Your task to perform on an android device: Search for the best 4K TV Image 0: 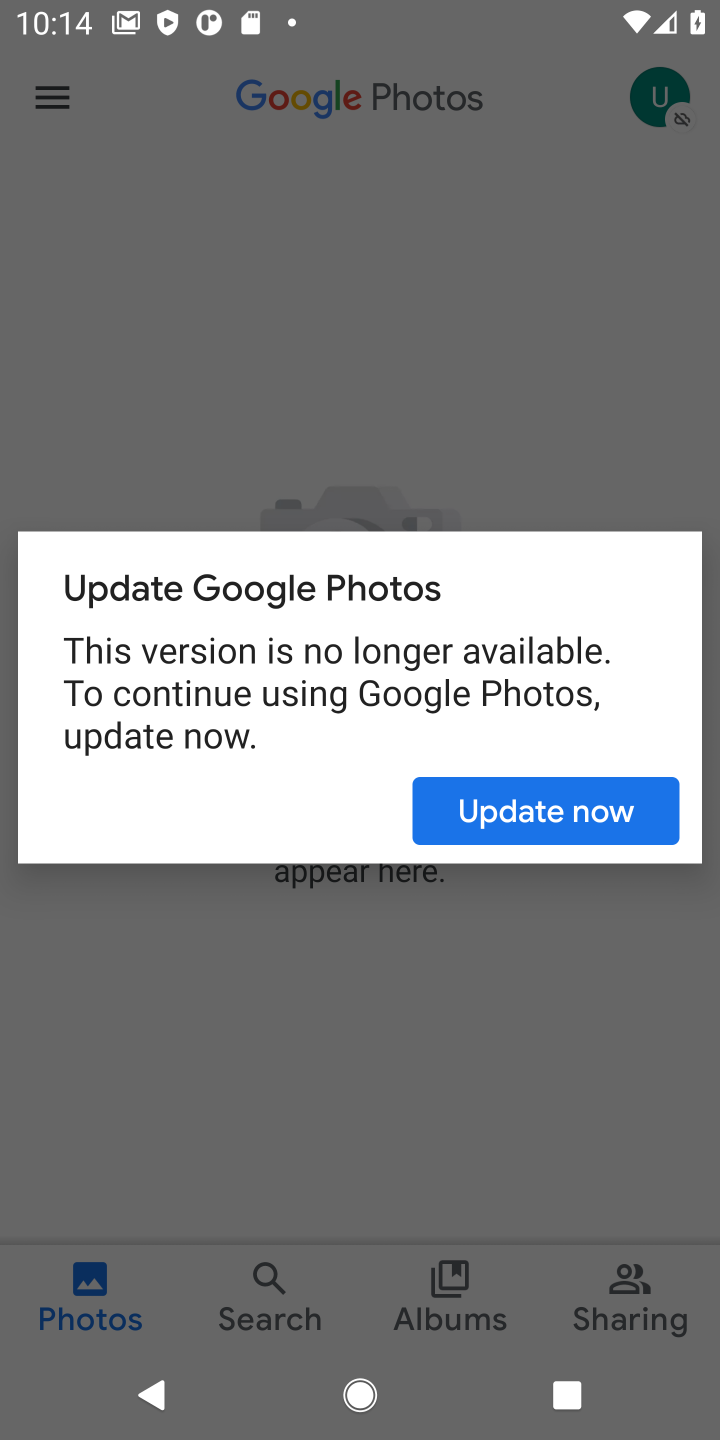
Step 0: press home button
Your task to perform on an android device: Search for the best 4K TV Image 1: 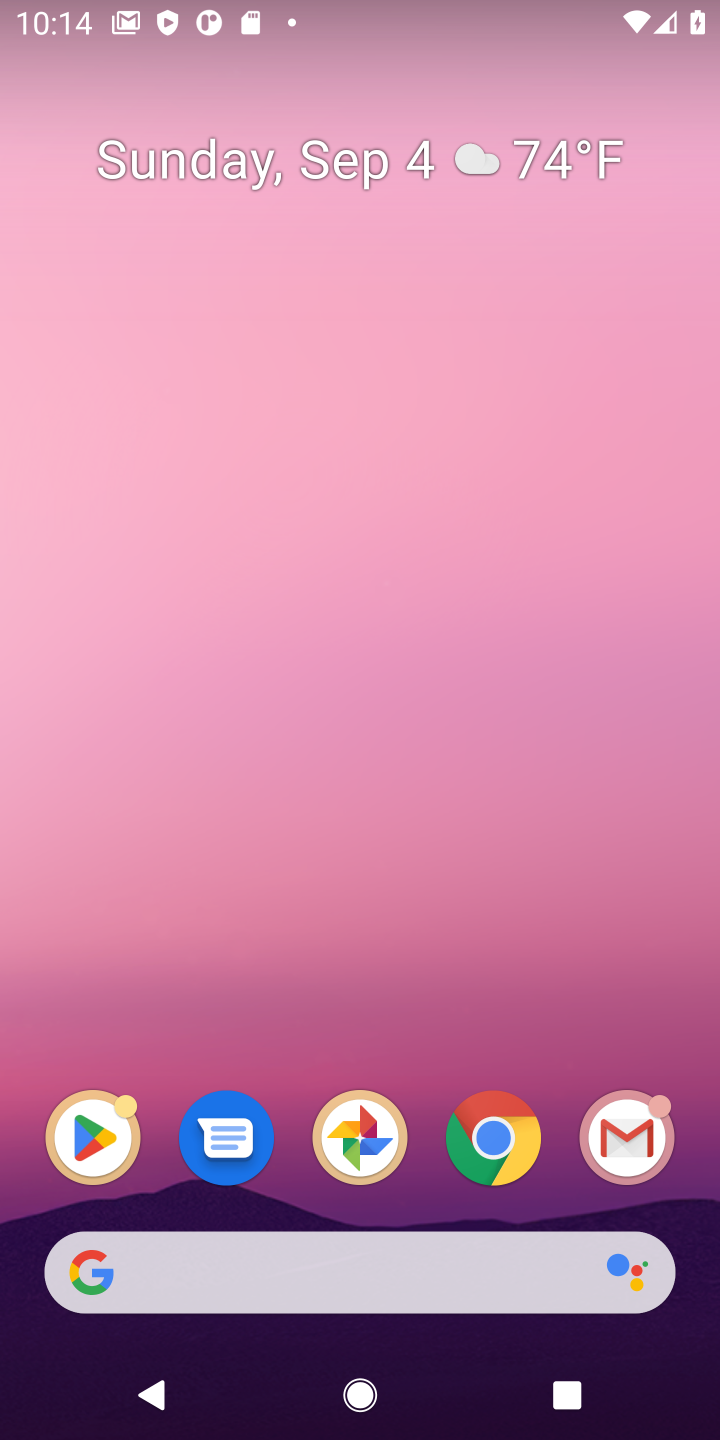
Step 1: click (479, 1137)
Your task to perform on an android device: Search for the best 4K TV Image 2: 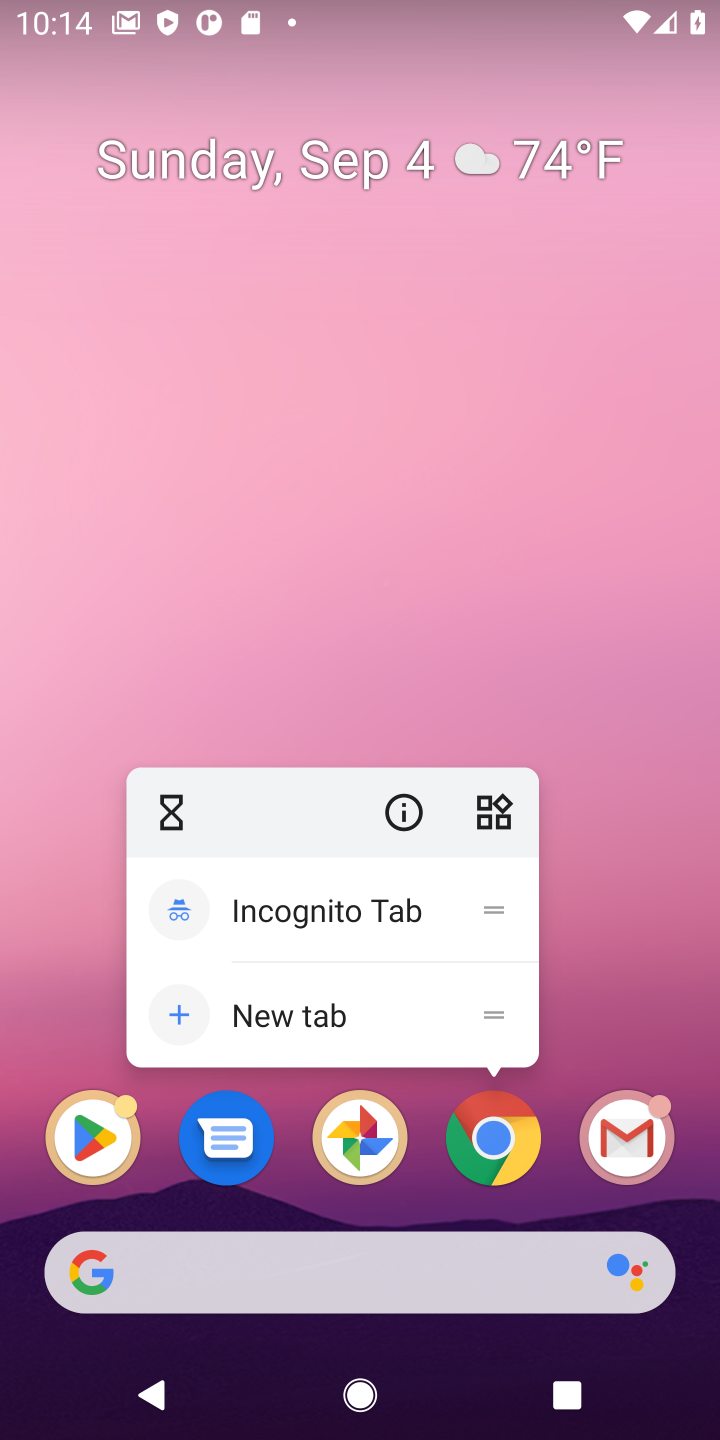
Step 2: click (463, 1134)
Your task to perform on an android device: Search for the best 4K TV Image 3: 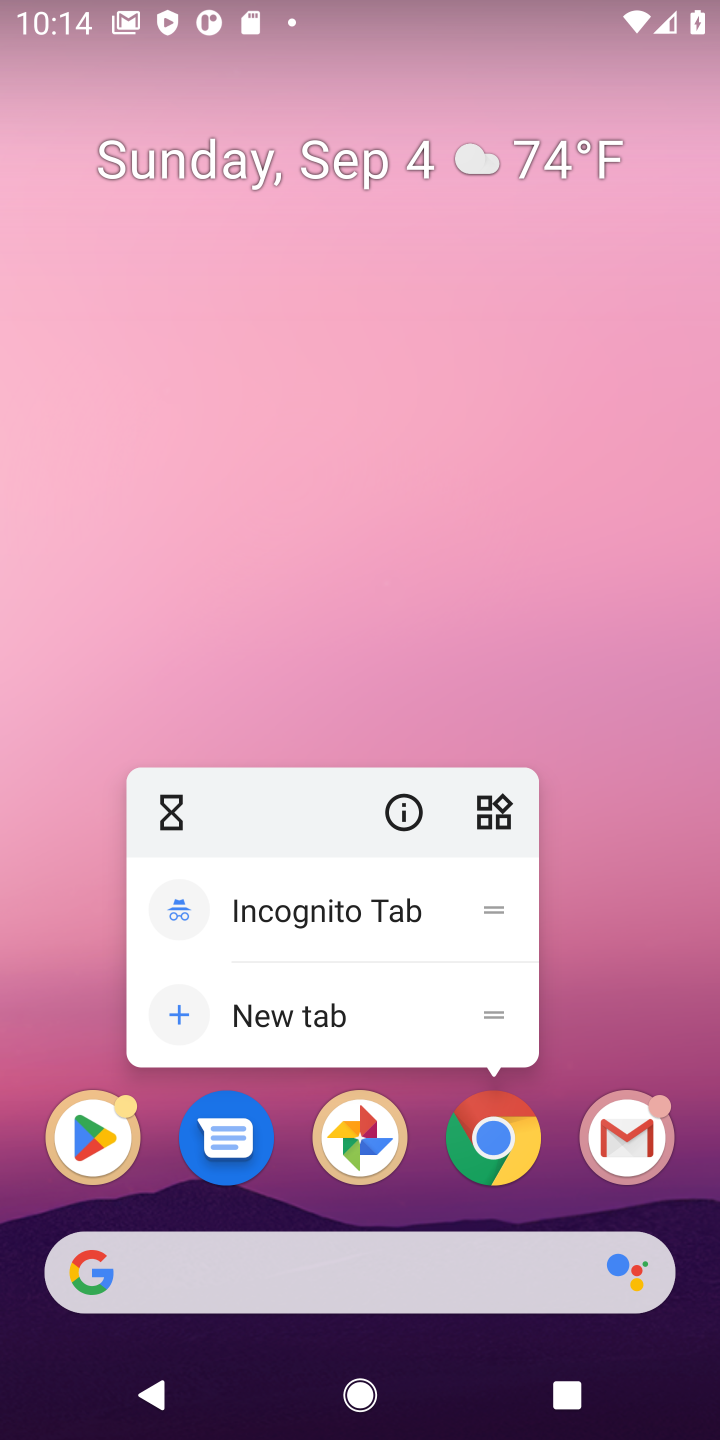
Step 3: click (510, 1180)
Your task to perform on an android device: Search for the best 4K TV Image 4: 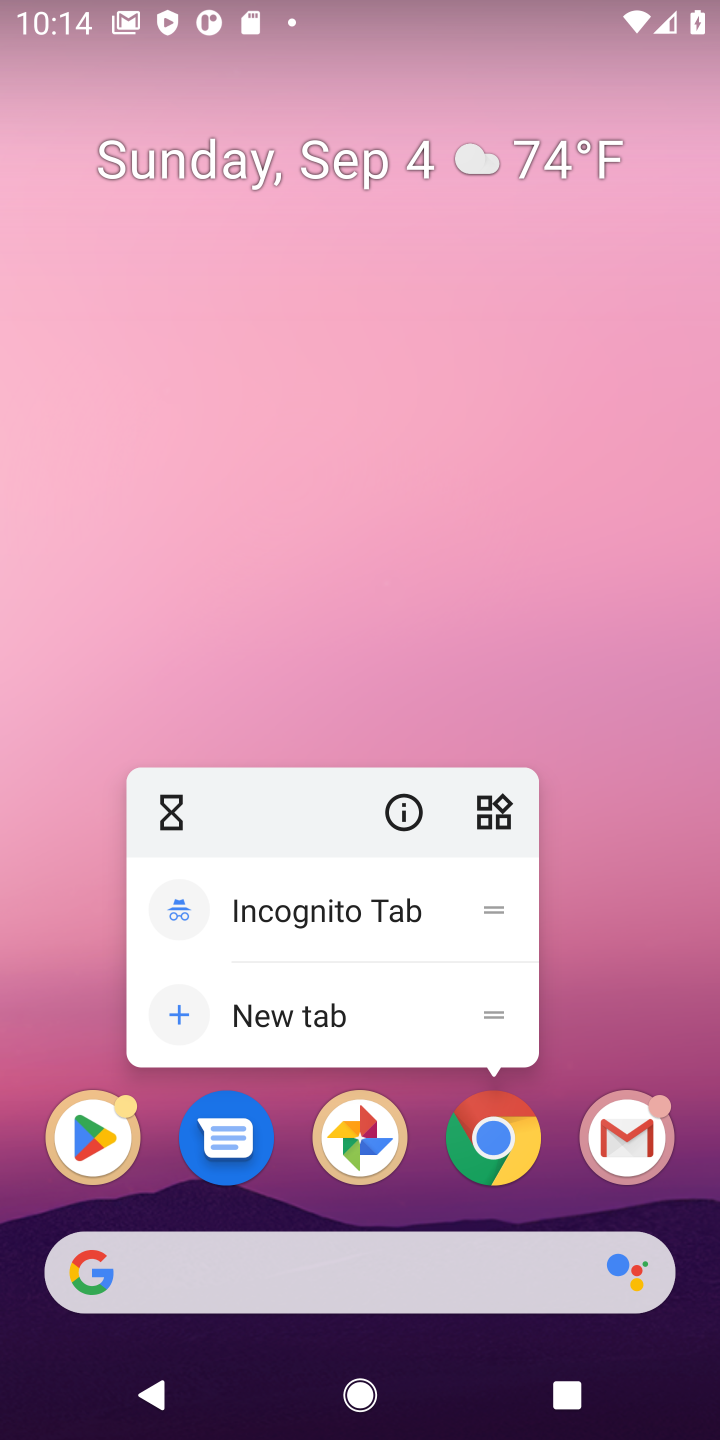
Step 4: click (528, 1139)
Your task to perform on an android device: Search for the best 4K TV Image 5: 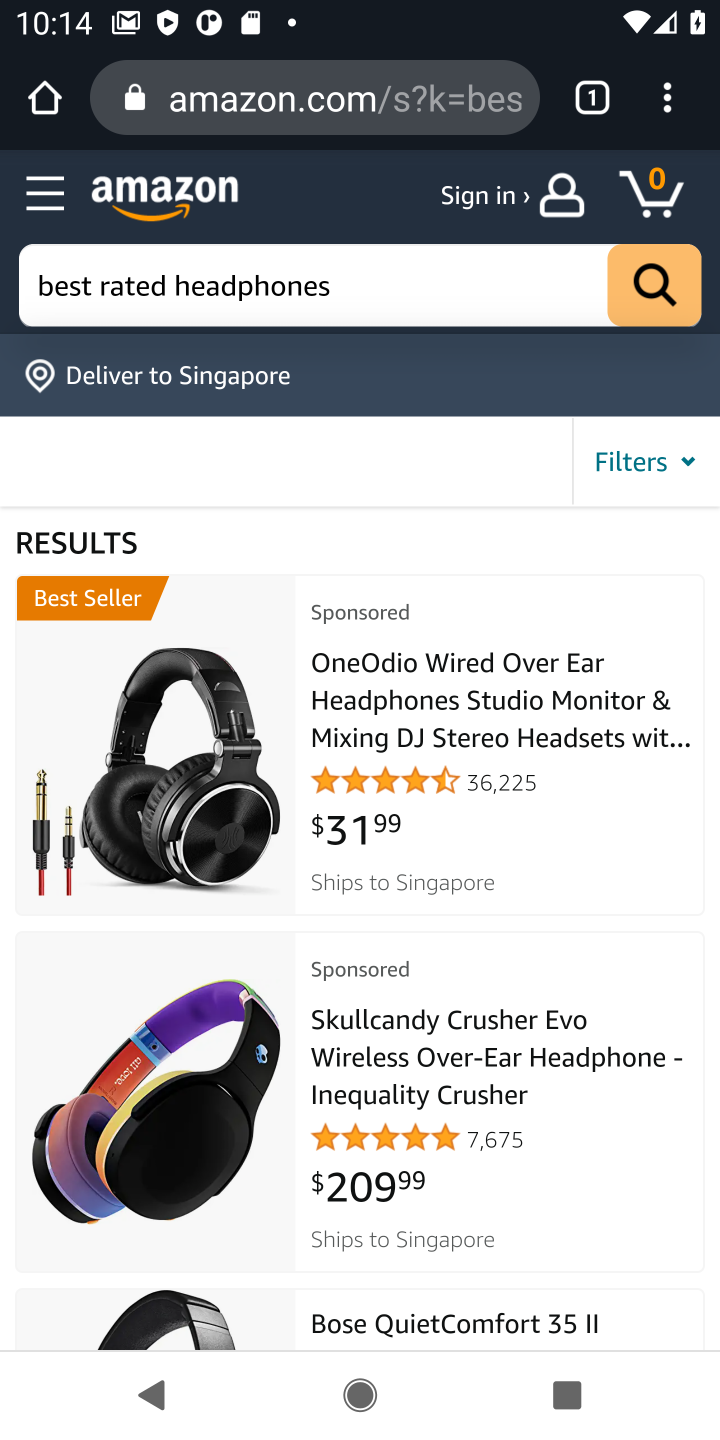
Step 5: click (332, 109)
Your task to perform on an android device: Search for the best 4K TV Image 6: 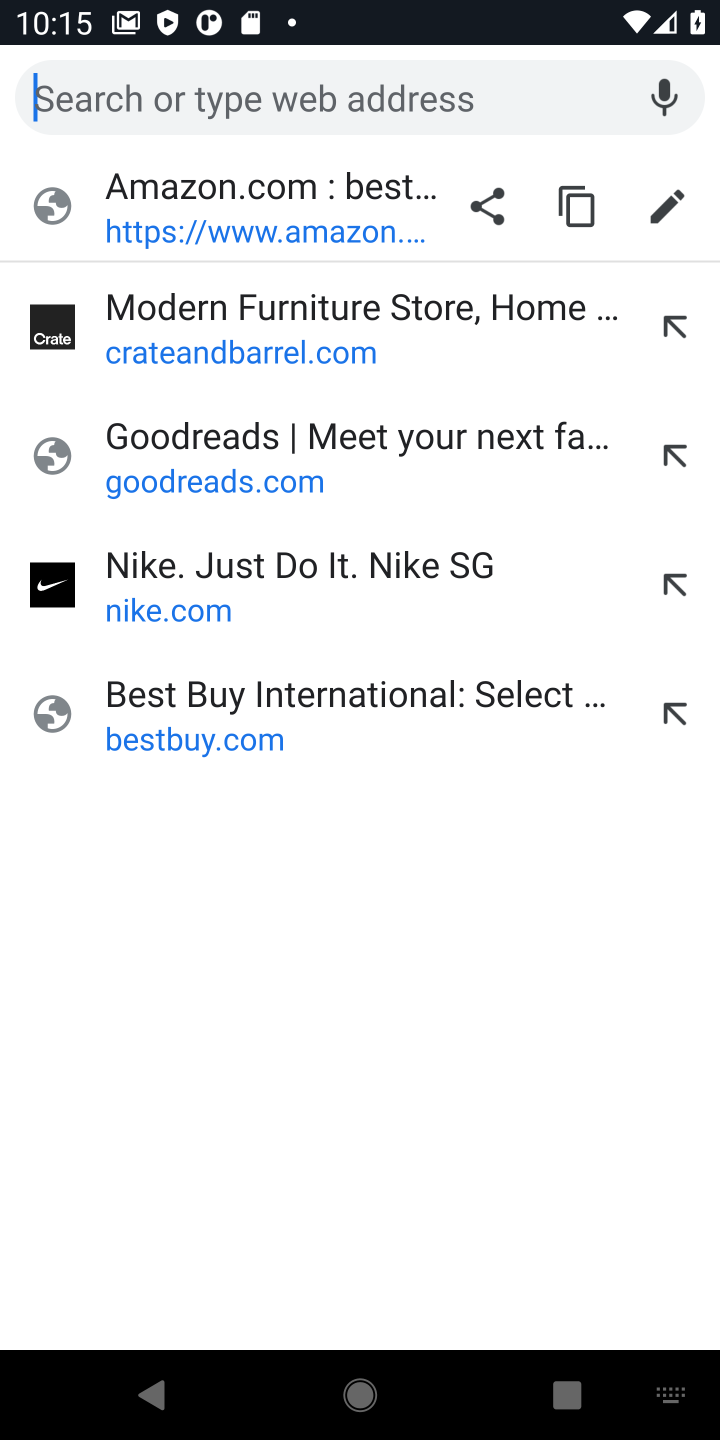
Step 6: type "best 4k tv"
Your task to perform on an android device: Search for the best 4K TV Image 7: 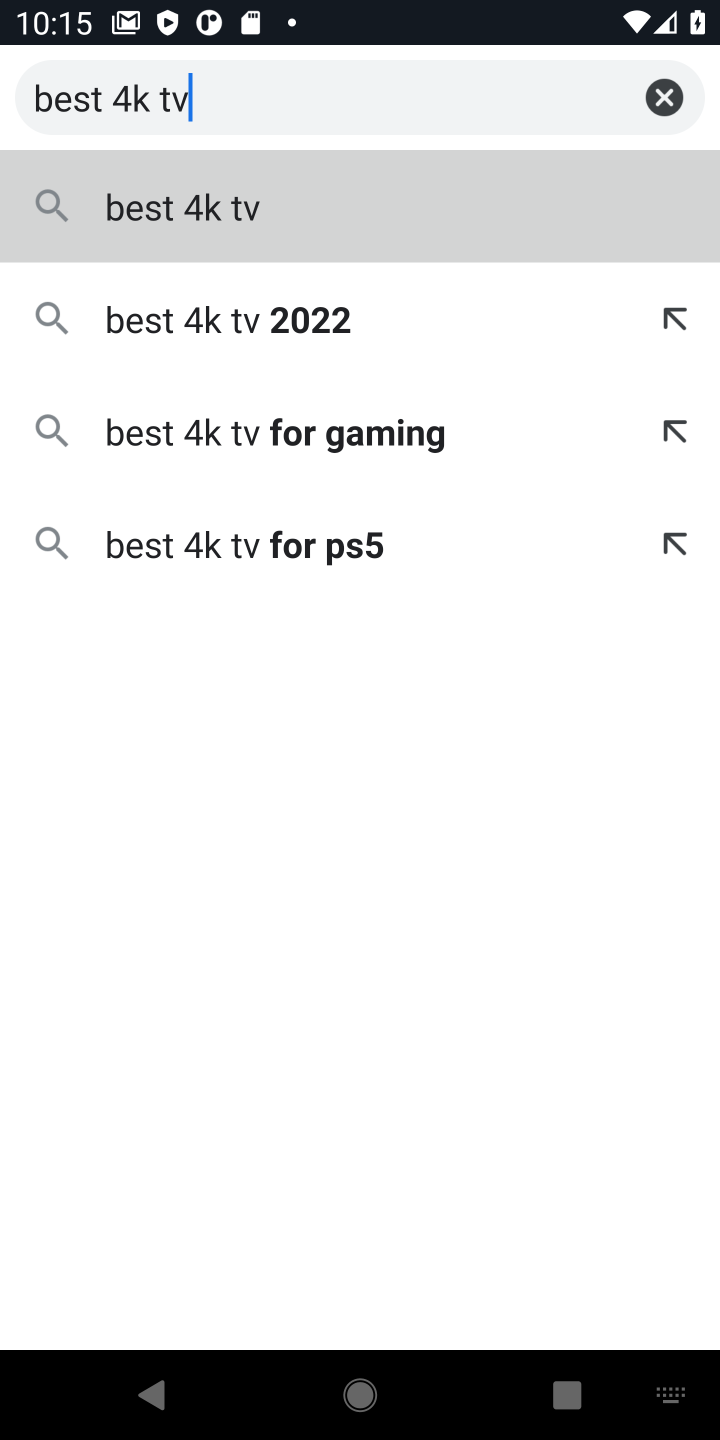
Step 7: click (546, 259)
Your task to perform on an android device: Search for the best 4K TV Image 8: 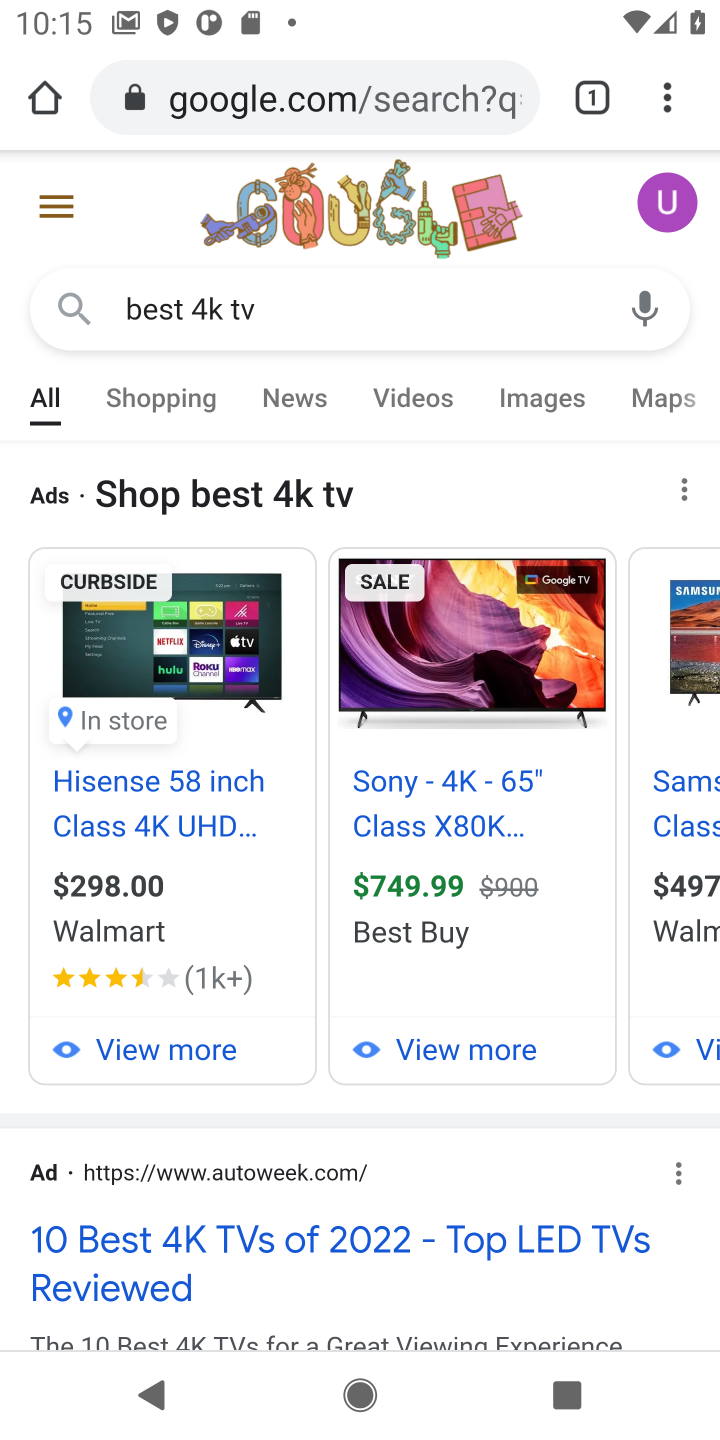
Step 8: task complete